Your task to perform on an android device: turn on javascript in the chrome app Image 0: 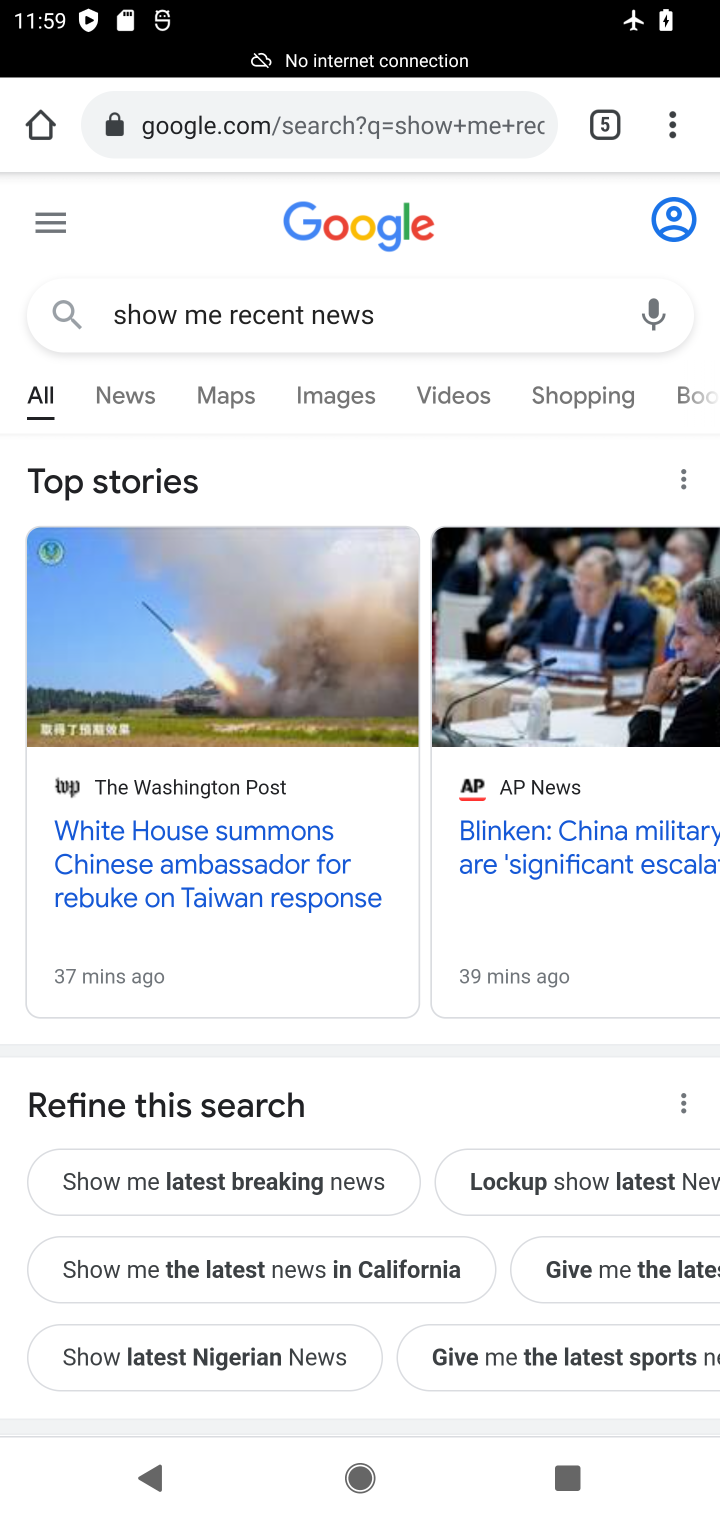
Step 0: press home button
Your task to perform on an android device: turn on javascript in the chrome app Image 1: 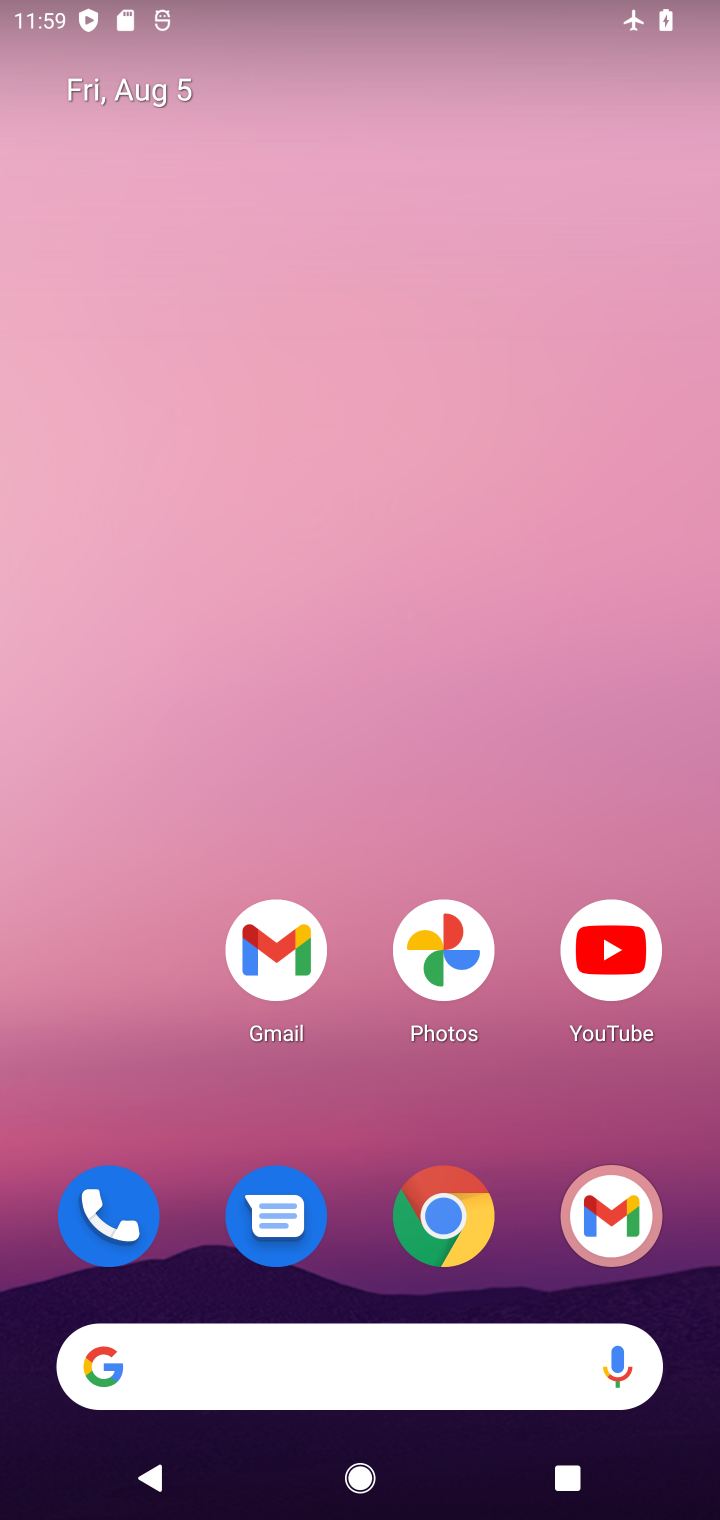
Step 1: drag from (384, 1370) to (395, 109)
Your task to perform on an android device: turn on javascript in the chrome app Image 2: 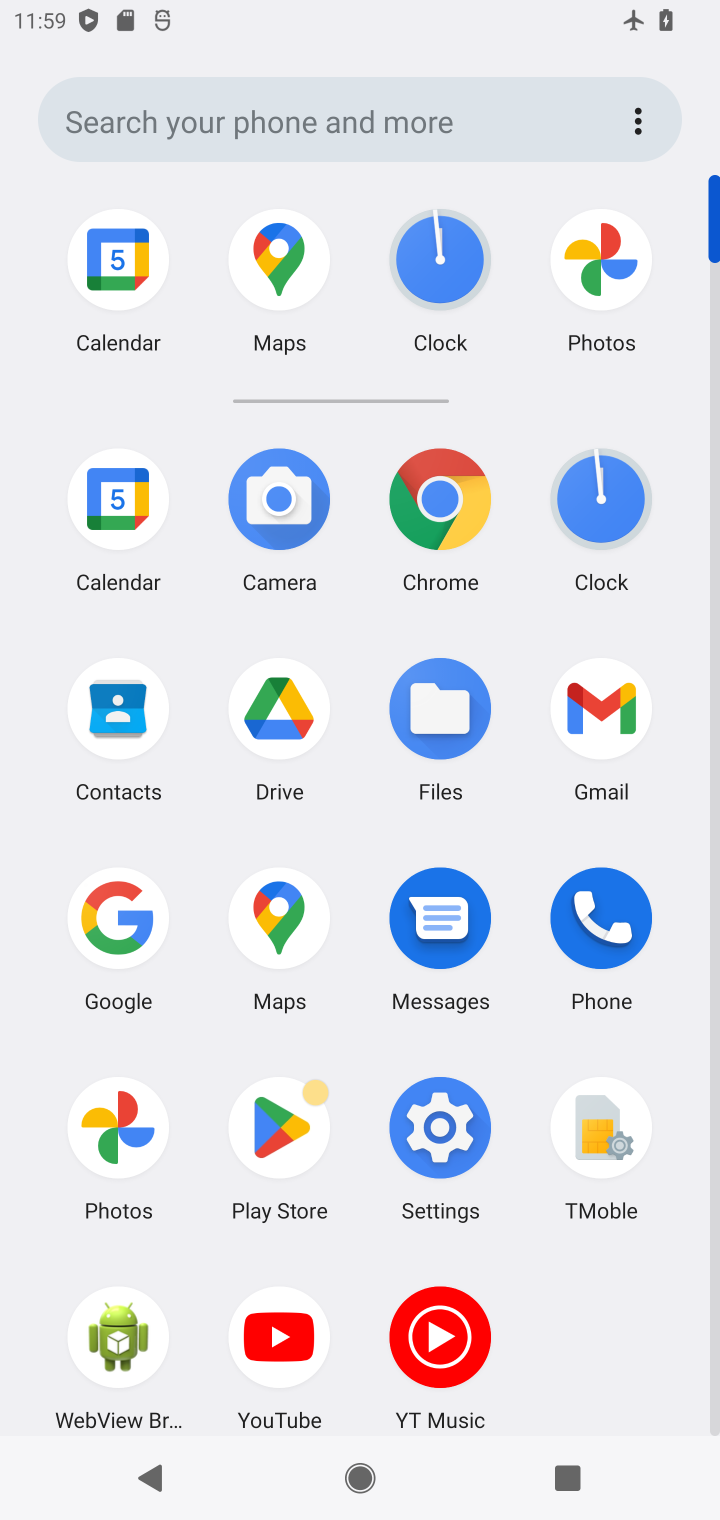
Step 2: click (449, 494)
Your task to perform on an android device: turn on javascript in the chrome app Image 3: 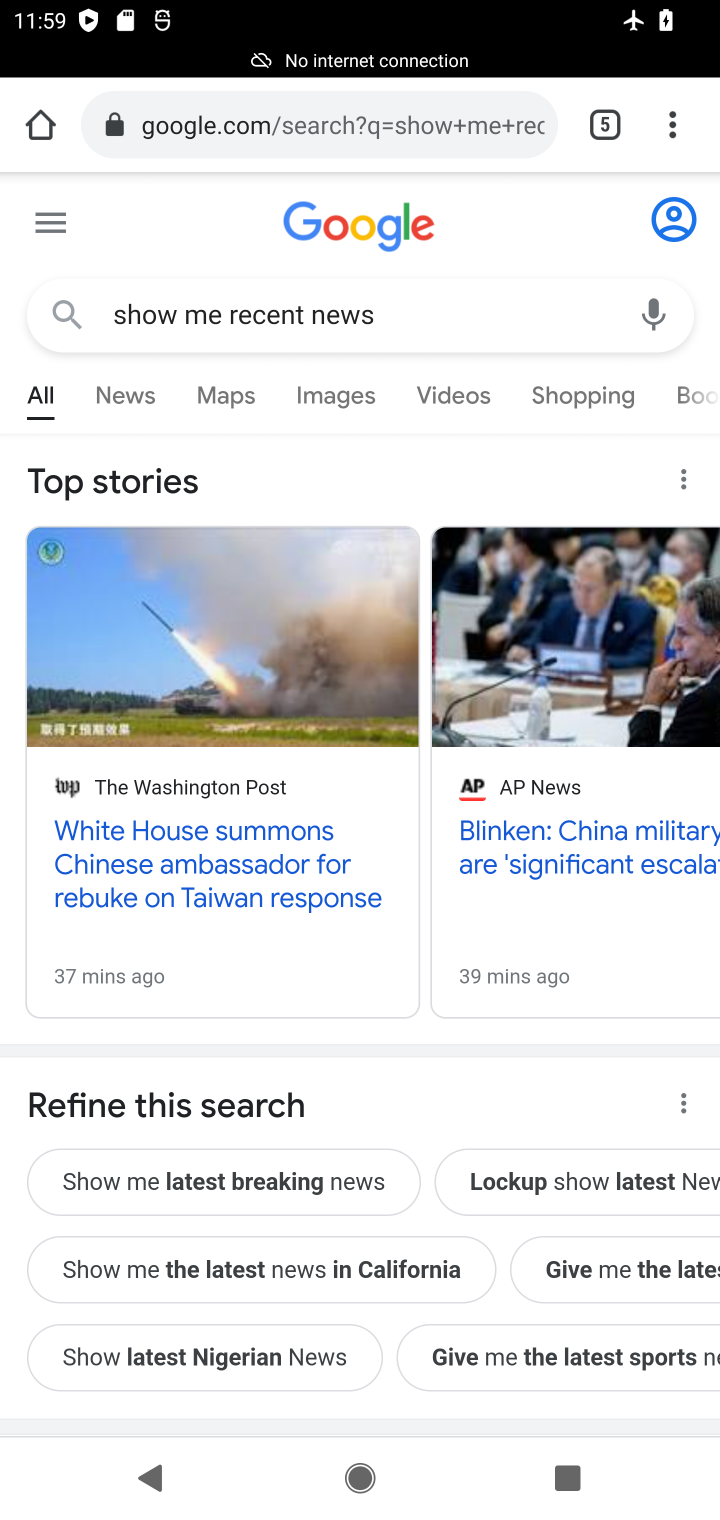
Step 3: click (682, 134)
Your task to perform on an android device: turn on javascript in the chrome app Image 4: 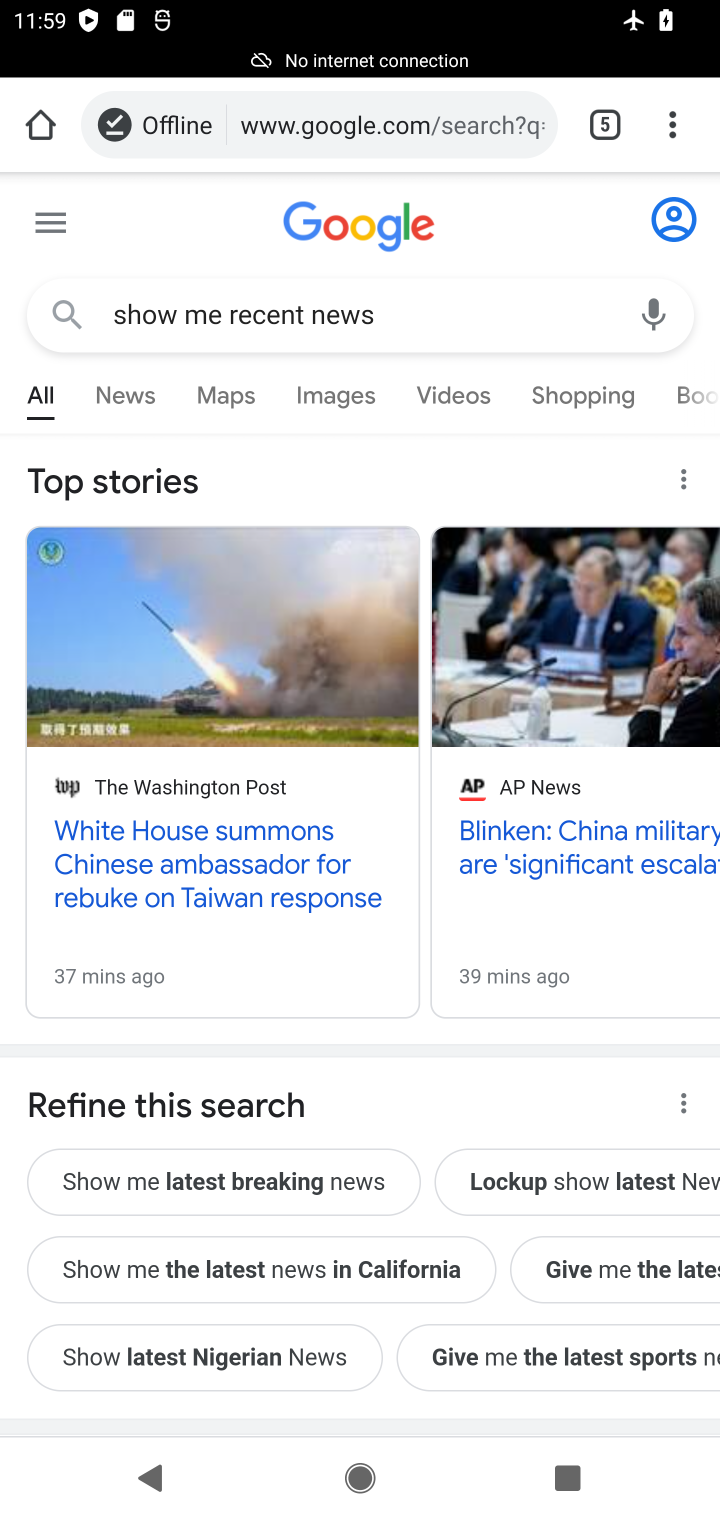
Step 4: drag from (673, 100) to (426, 1168)
Your task to perform on an android device: turn on javascript in the chrome app Image 5: 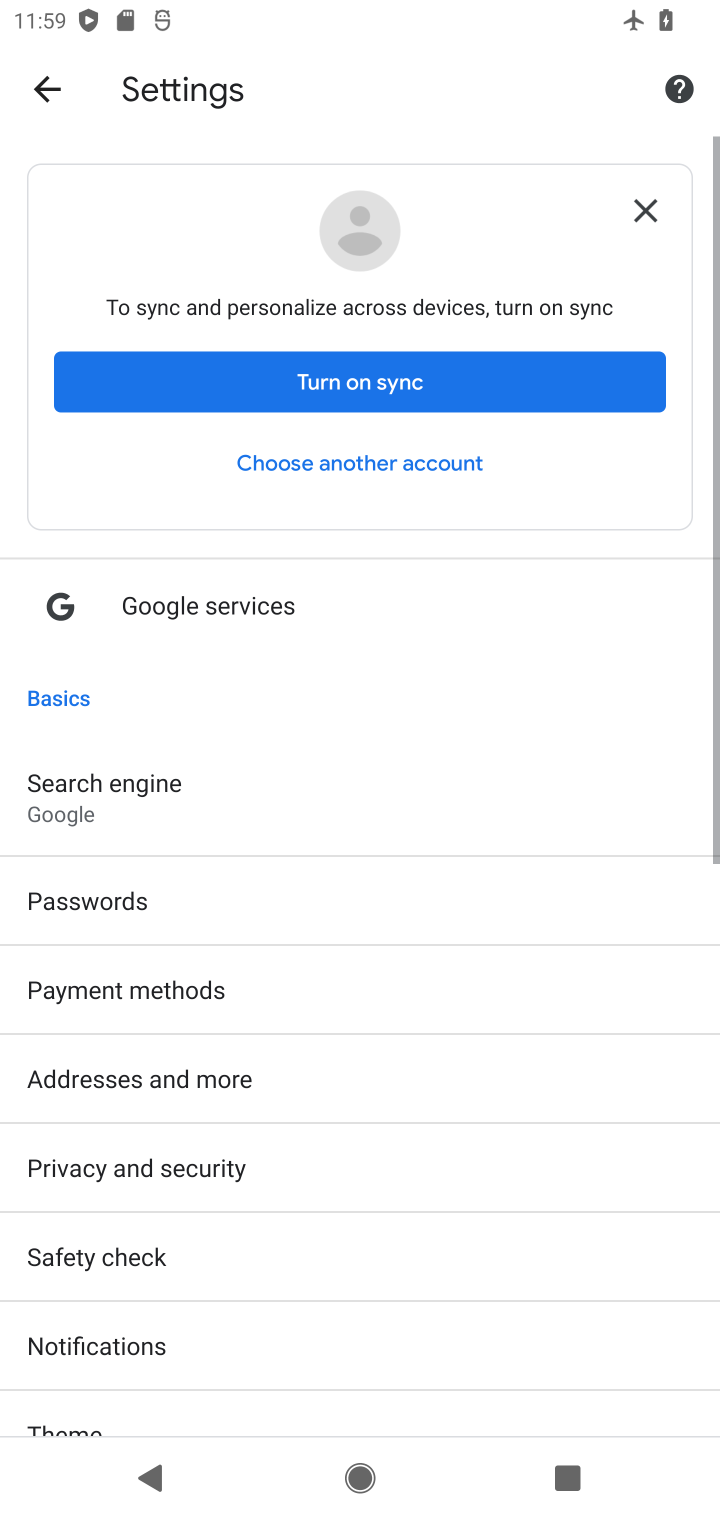
Step 5: drag from (295, 1382) to (388, 659)
Your task to perform on an android device: turn on javascript in the chrome app Image 6: 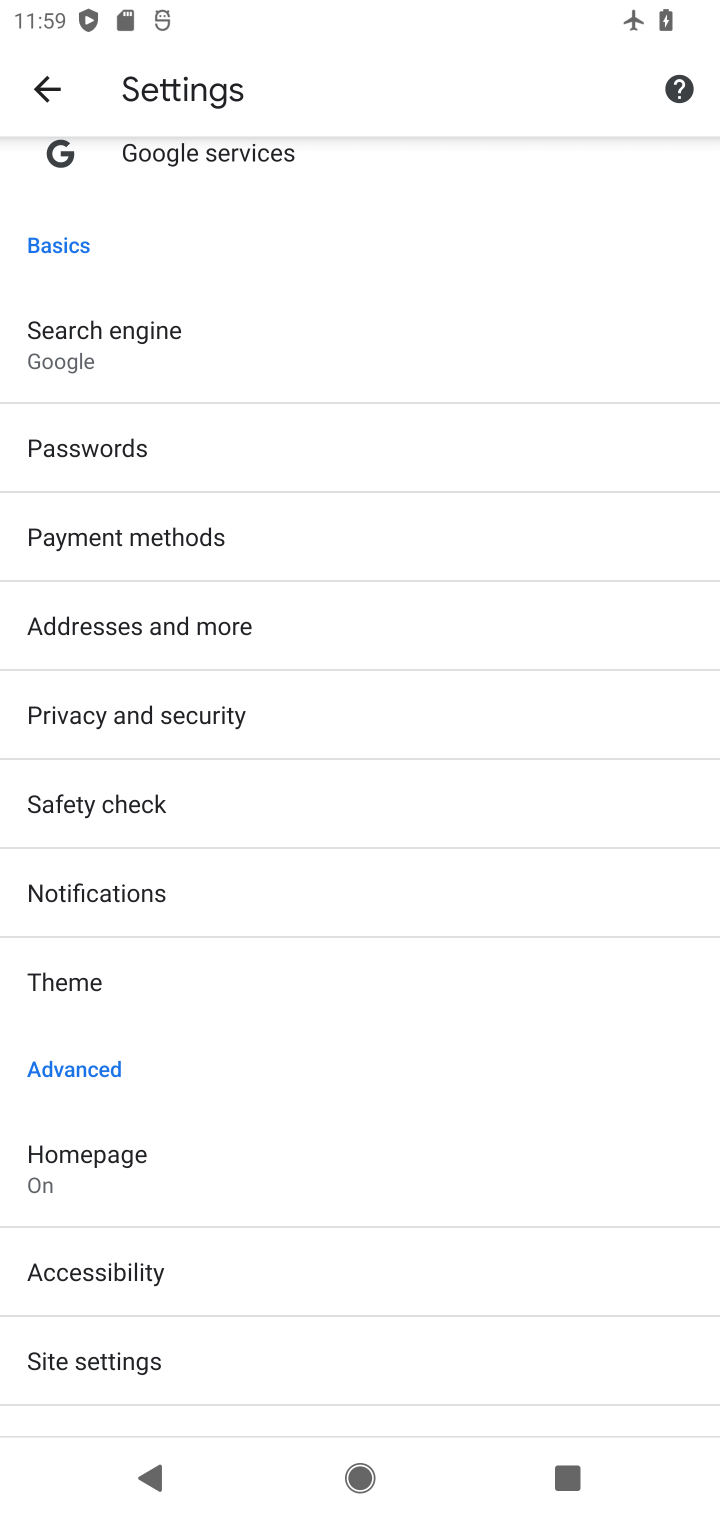
Step 6: click (165, 1335)
Your task to perform on an android device: turn on javascript in the chrome app Image 7: 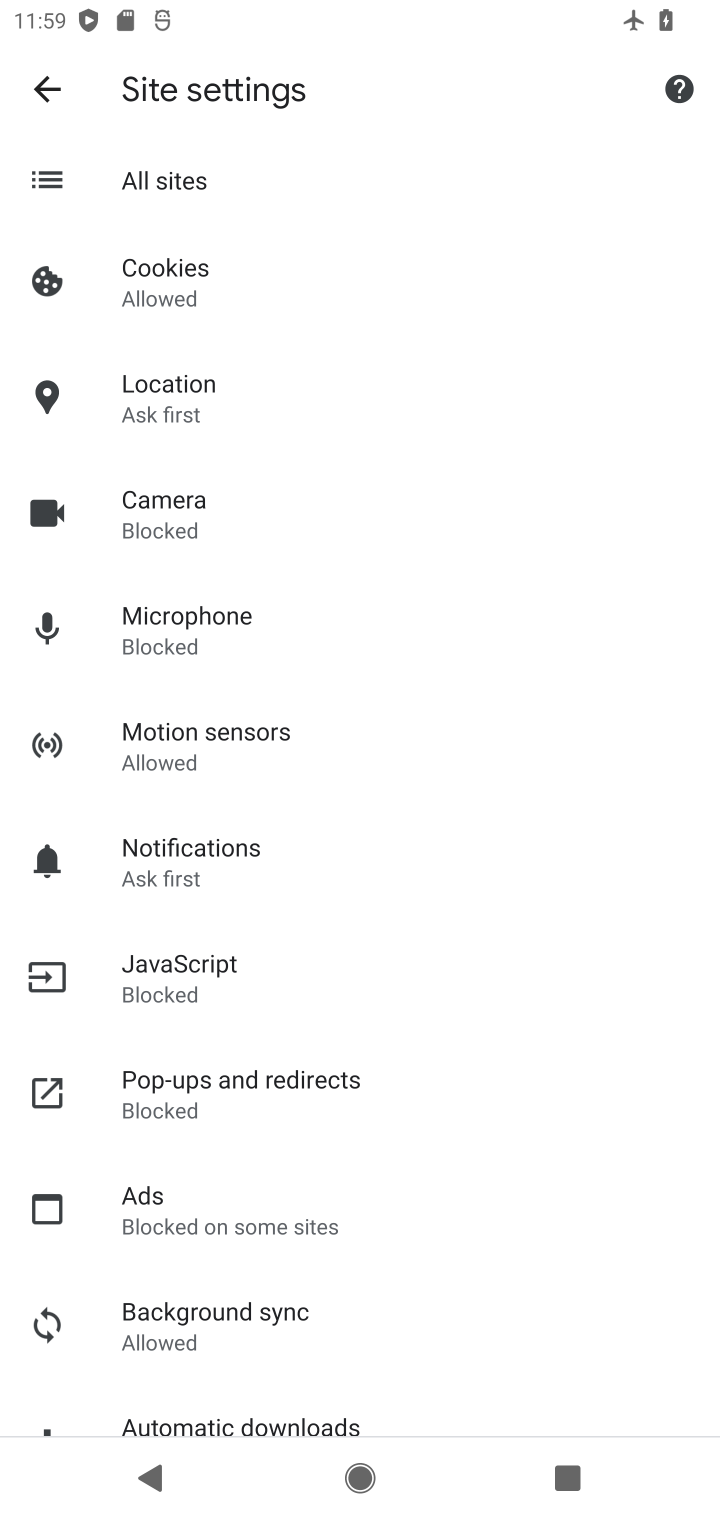
Step 7: click (190, 967)
Your task to perform on an android device: turn on javascript in the chrome app Image 8: 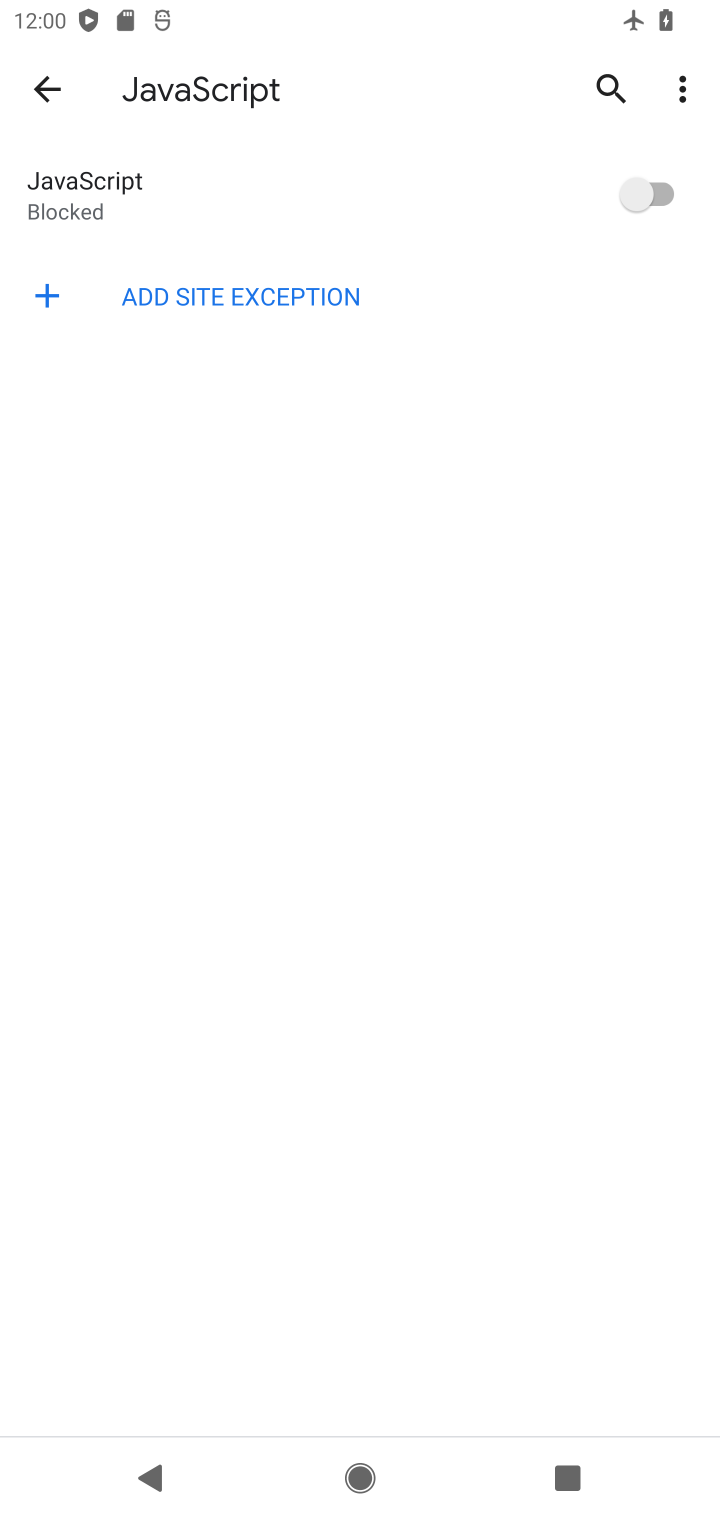
Step 8: click (651, 176)
Your task to perform on an android device: turn on javascript in the chrome app Image 9: 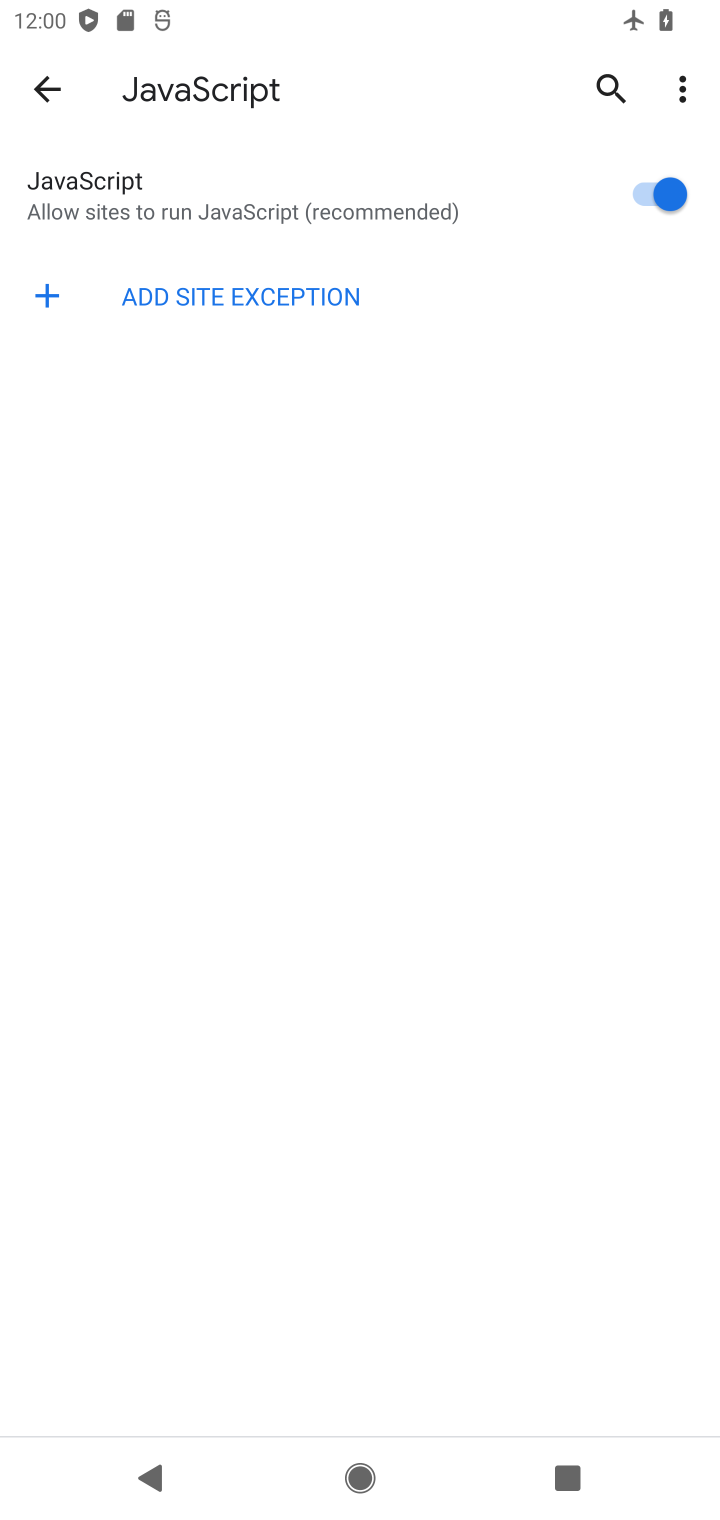
Step 9: task complete